Your task to perform on an android device: What's the weather going to be this weekend? Image 0: 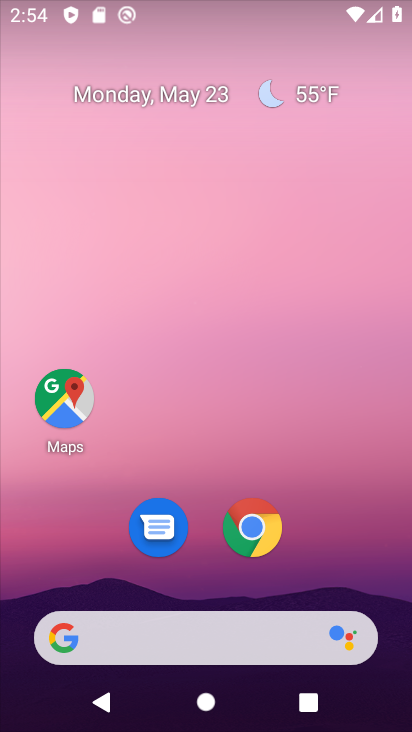
Step 0: press home button
Your task to perform on an android device: What's the weather going to be this weekend? Image 1: 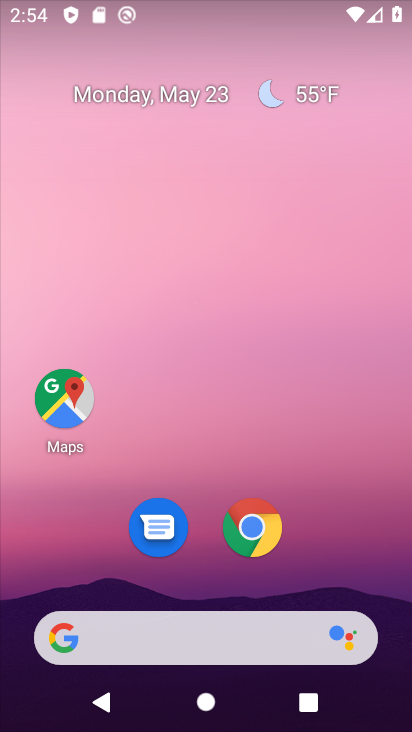
Step 1: click (322, 90)
Your task to perform on an android device: What's the weather going to be this weekend? Image 2: 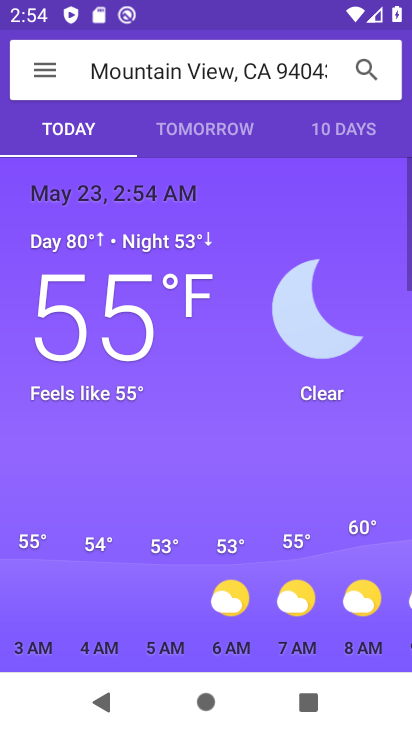
Step 2: click (340, 134)
Your task to perform on an android device: What's the weather going to be this weekend? Image 3: 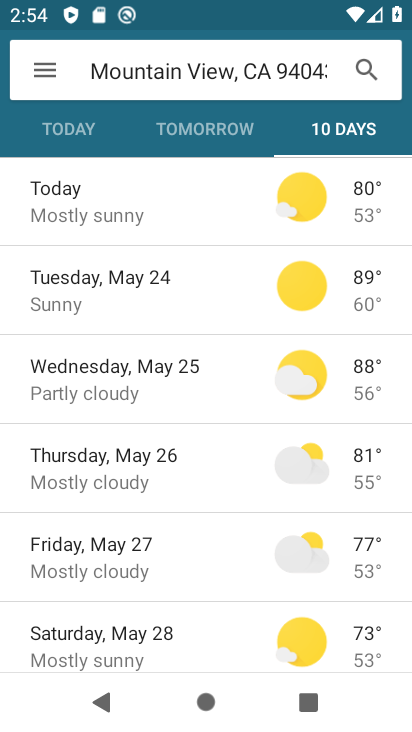
Step 3: task complete